Your task to perform on an android device: toggle javascript in the chrome app Image 0: 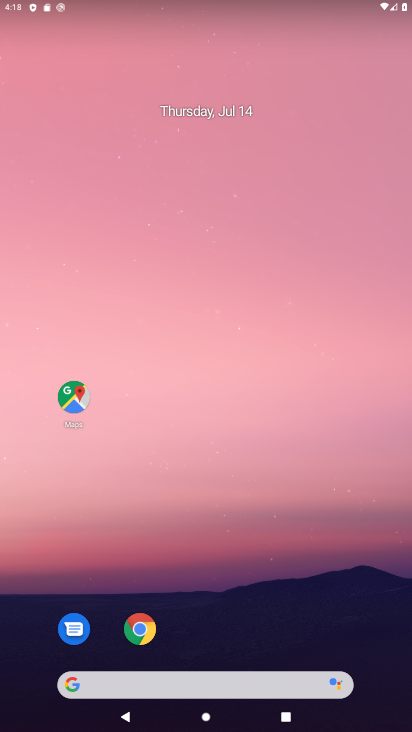
Step 0: click (140, 631)
Your task to perform on an android device: toggle javascript in the chrome app Image 1: 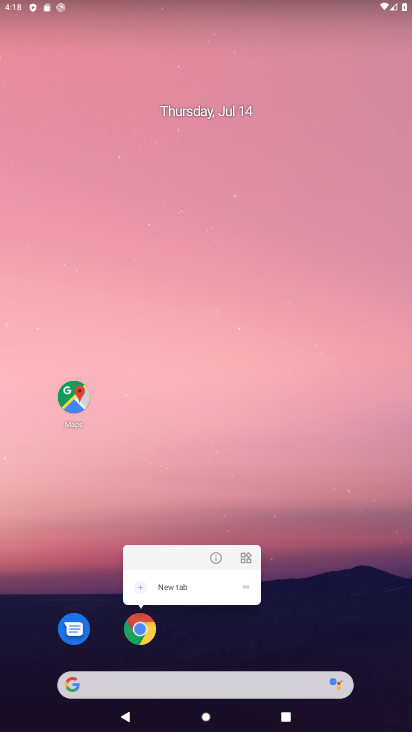
Step 1: click (140, 631)
Your task to perform on an android device: toggle javascript in the chrome app Image 2: 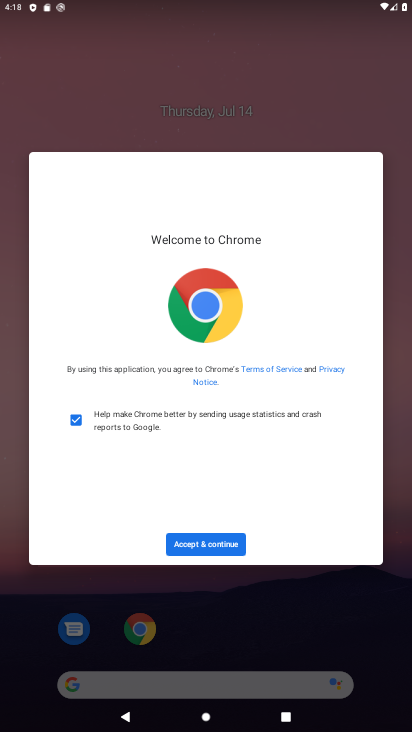
Step 2: click (175, 548)
Your task to perform on an android device: toggle javascript in the chrome app Image 3: 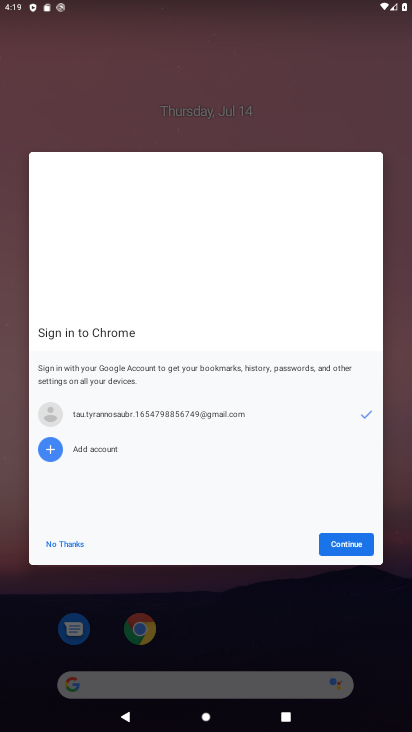
Step 3: click (333, 542)
Your task to perform on an android device: toggle javascript in the chrome app Image 4: 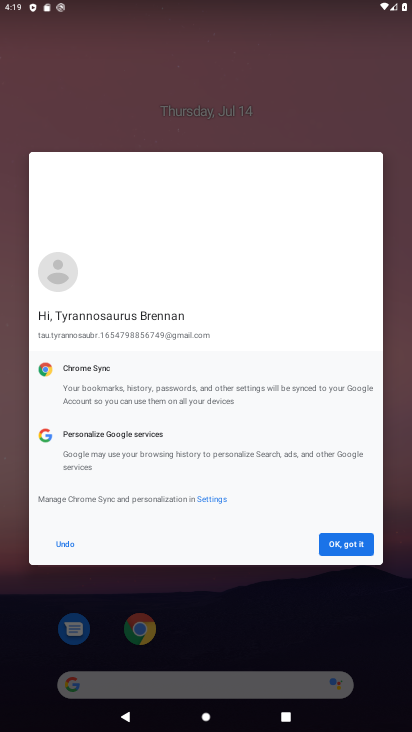
Step 4: click (348, 547)
Your task to perform on an android device: toggle javascript in the chrome app Image 5: 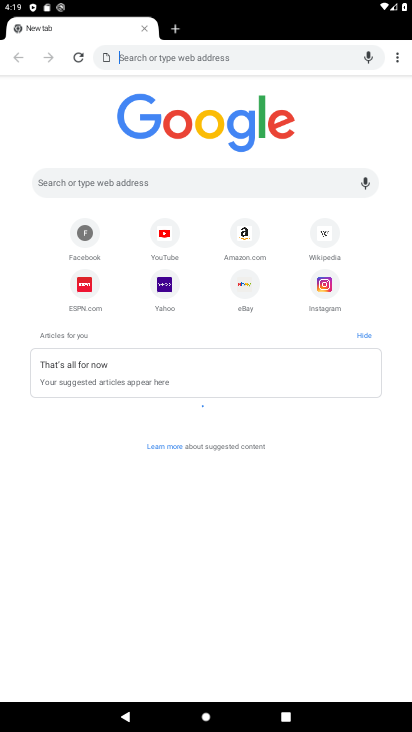
Step 5: drag from (391, 46) to (298, 261)
Your task to perform on an android device: toggle javascript in the chrome app Image 6: 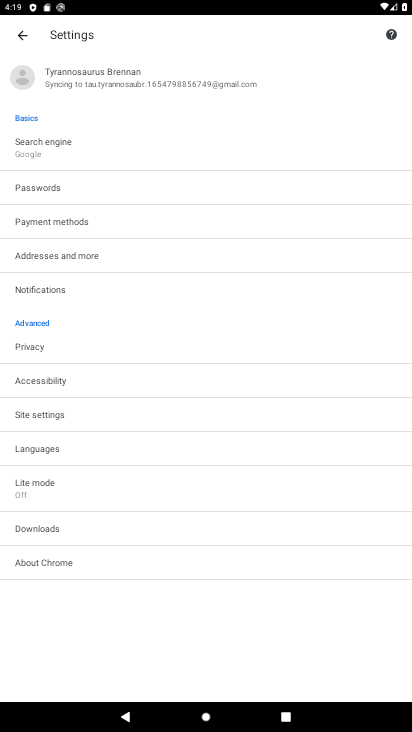
Step 6: click (80, 417)
Your task to perform on an android device: toggle javascript in the chrome app Image 7: 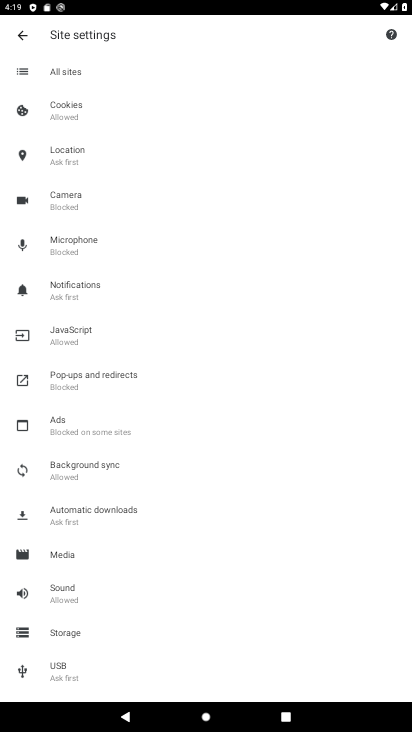
Step 7: click (95, 330)
Your task to perform on an android device: toggle javascript in the chrome app Image 8: 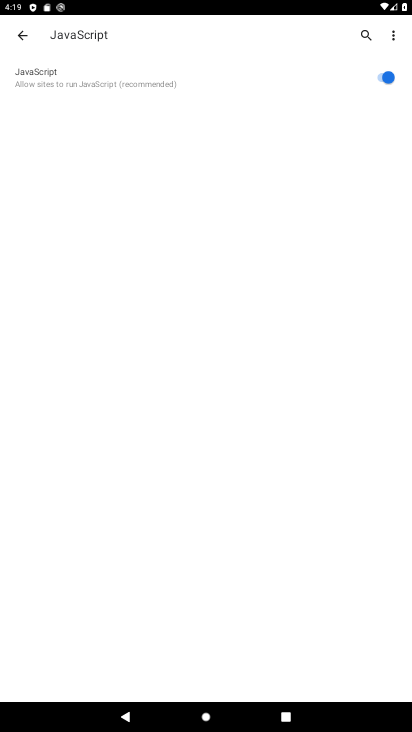
Step 8: click (379, 77)
Your task to perform on an android device: toggle javascript in the chrome app Image 9: 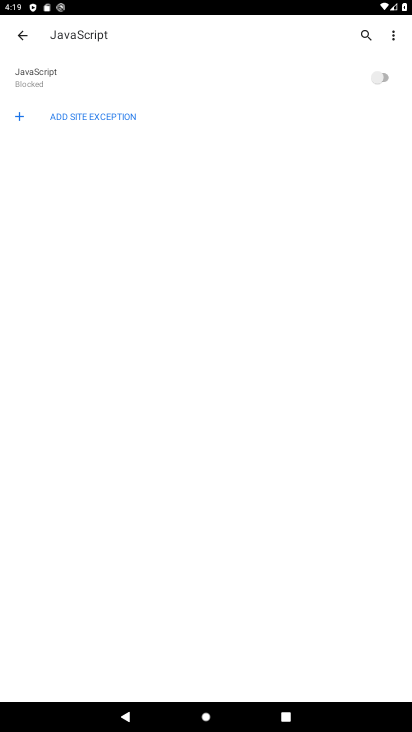
Step 9: task complete